Your task to perform on an android device: Open the phone app and click the voicemail tab. Image 0: 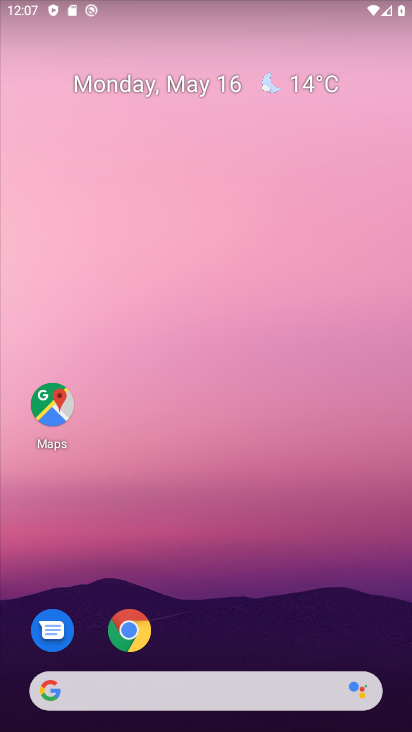
Step 0: drag from (201, 623) to (190, 219)
Your task to perform on an android device: Open the phone app and click the voicemail tab. Image 1: 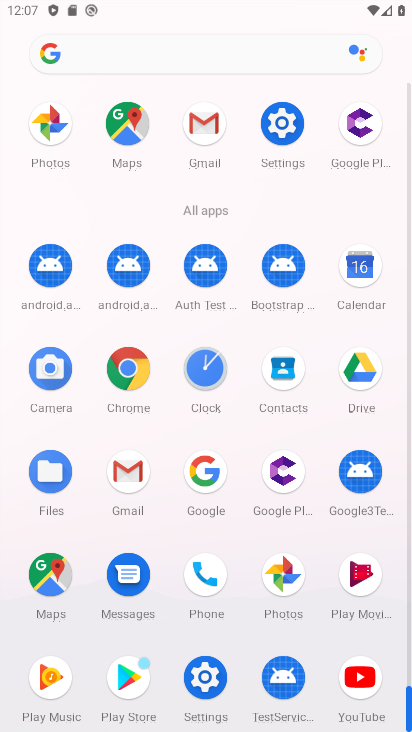
Step 1: click (205, 560)
Your task to perform on an android device: Open the phone app and click the voicemail tab. Image 2: 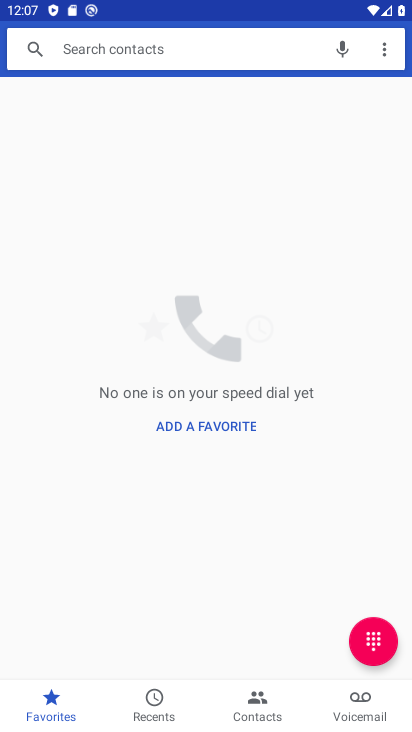
Step 2: click (354, 708)
Your task to perform on an android device: Open the phone app and click the voicemail tab. Image 3: 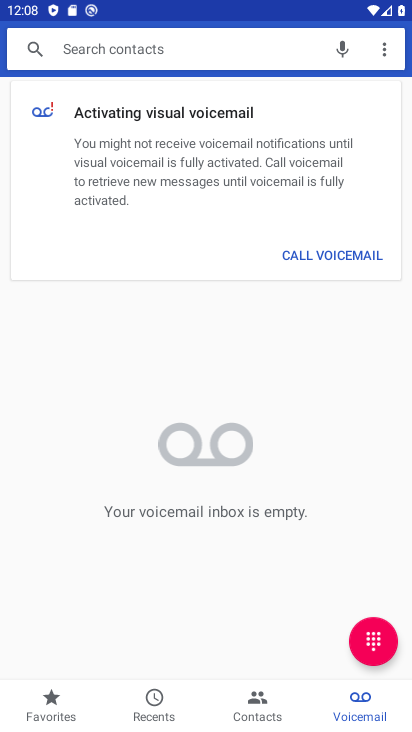
Step 3: task complete